Your task to perform on an android device: turn on sleep mode Image 0: 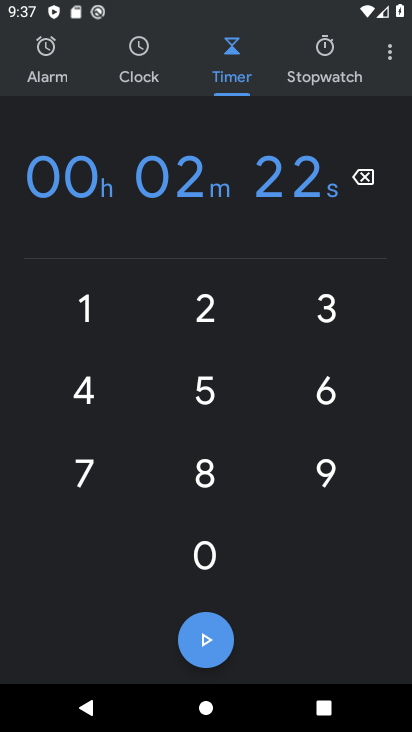
Step 0: press home button
Your task to perform on an android device: turn on sleep mode Image 1: 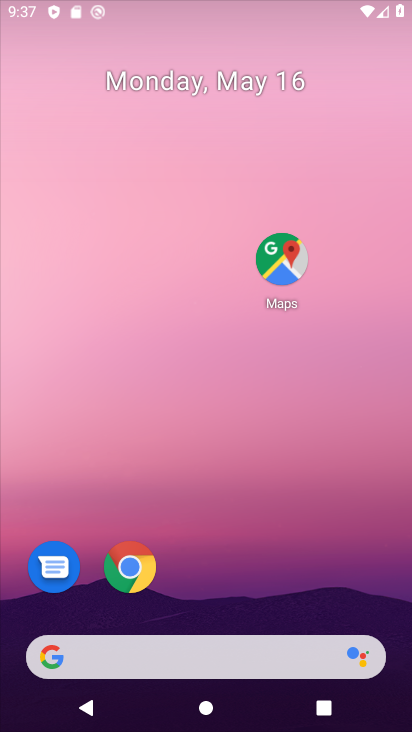
Step 1: drag from (237, 541) to (243, 56)
Your task to perform on an android device: turn on sleep mode Image 2: 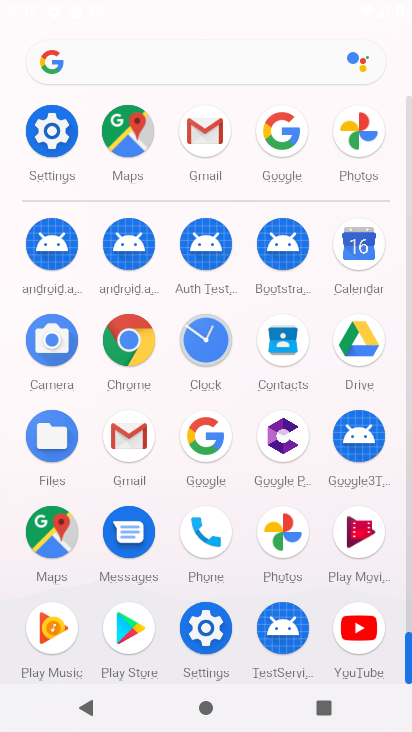
Step 2: click (50, 127)
Your task to perform on an android device: turn on sleep mode Image 3: 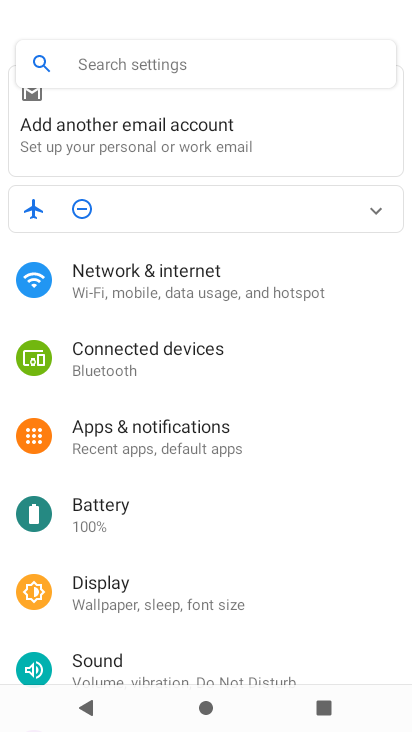
Step 3: drag from (222, 528) to (229, 240)
Your task to perform on an android device: turn on sleep mode Image 4: 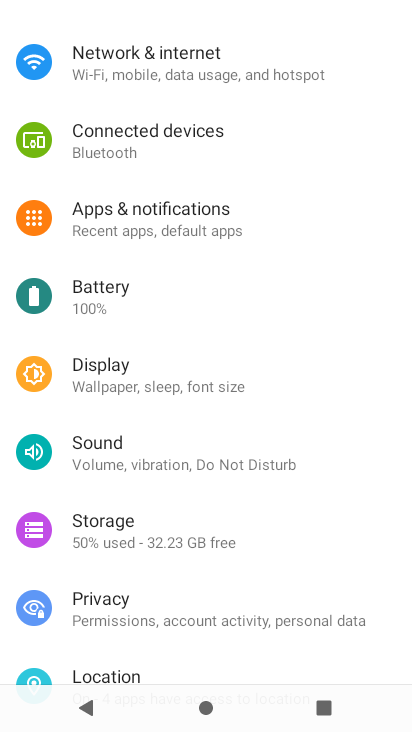
Step 4: click (166, 380)
Your task to perform on an android device: turn on sleep mode Image 5: 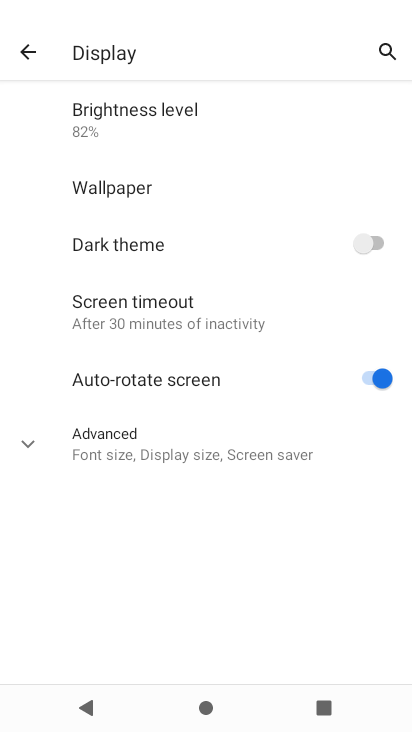
Step 5: task complete